Your task to perform on an android device: turn on priority inbox in the gmail app Image 0: 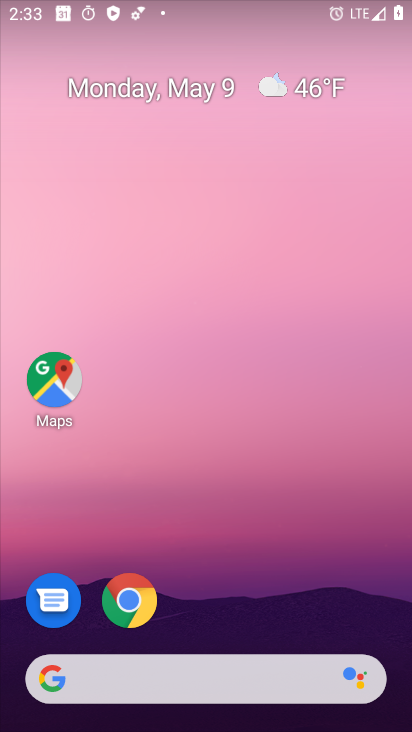
Step 0: drag from (207, 662) to (248, 97)
Your task to perform on an android device: turn on priority inbox in the gmail app Image 1: 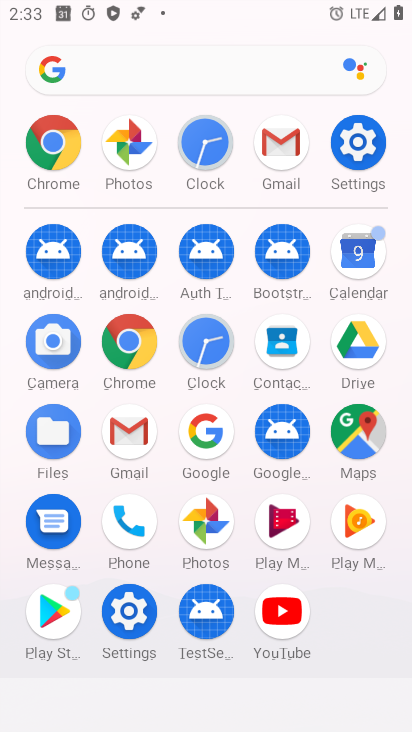
Step 1: click (287, 156)
Your task to perform on an android device: turn on priority inbox in the gmail app Image 2: 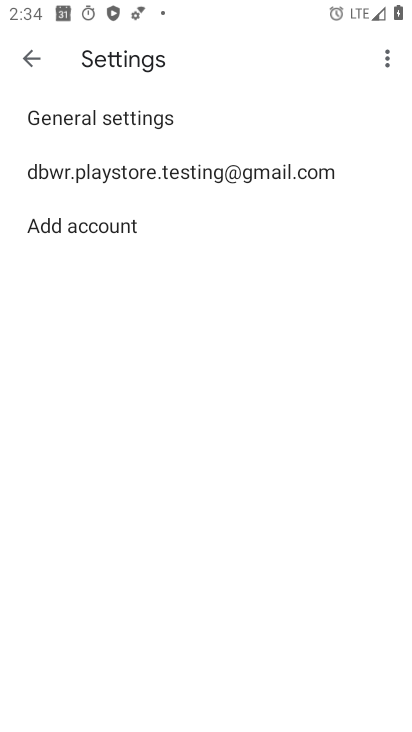
Step 2: click (181, 167)
Your task to perform on an android device: turn on priority inbox in the gmail app Image 3: 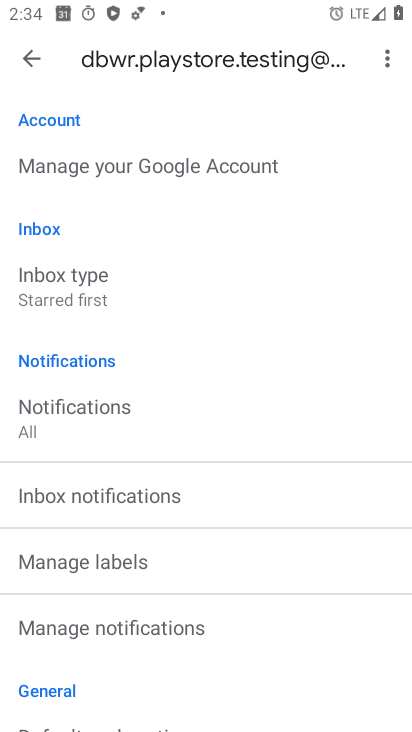
Step 3: click (65, 285)
Your task to perform on an android device: turn on priority inbox in the gmail app Image 4: 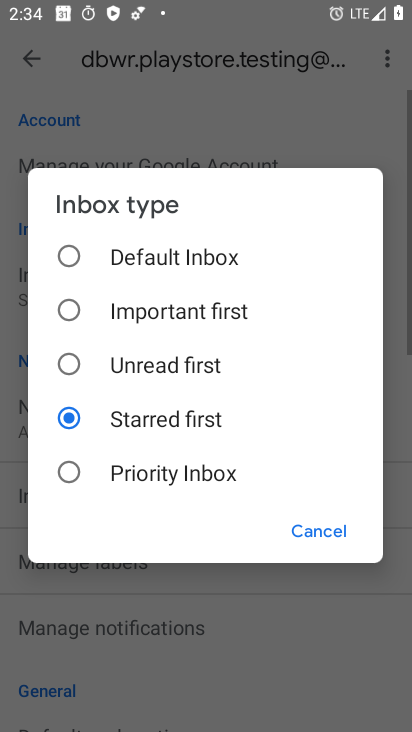
Step 4: click (138, 472)
Your task to perform on an android device: turn on priority inbox in the gmail app Image 5: 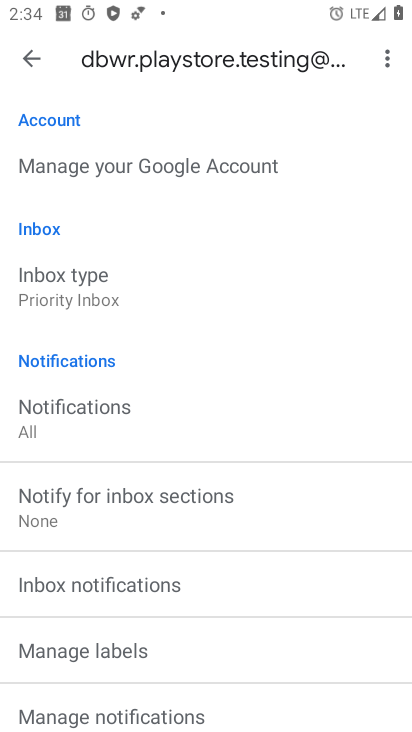
Step 5: task complete